Your task to perform on an android device: Show me popular games on the Play Store Image 0: 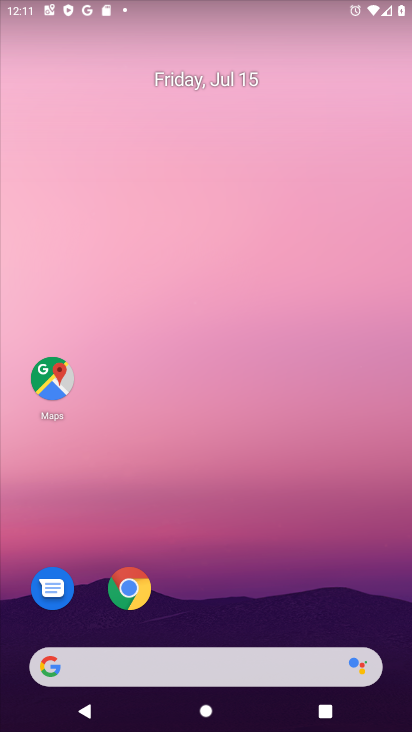
Step 0: press home button
Your task to perform on an android device: Show me popular games on the Play Store Image 1: 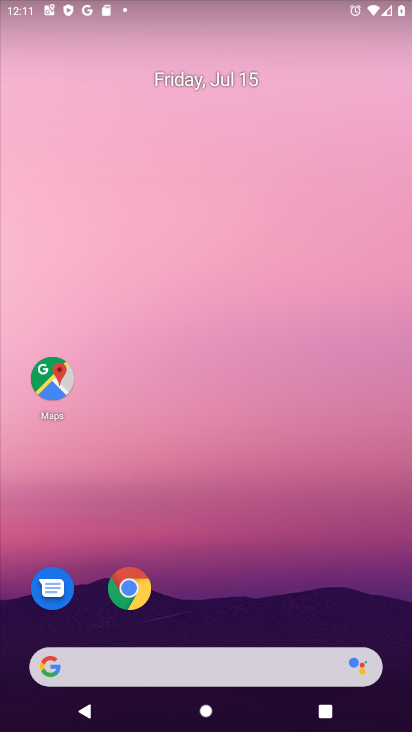
Step 1: drag from (166, 679) to (347, 225)
Your task to perform on an android device: Show me popular games on the Play Store Image 2: 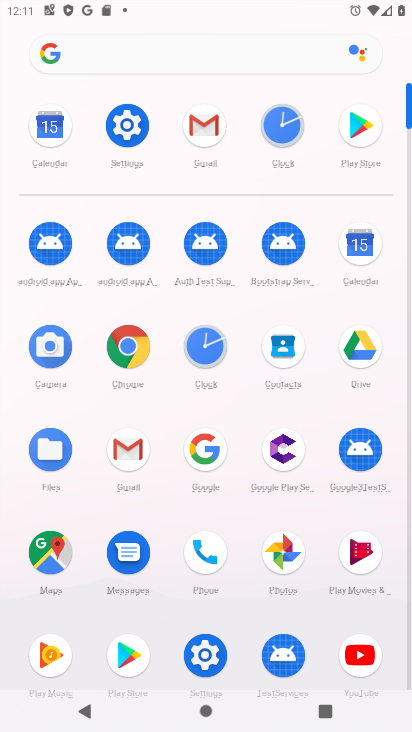
Step 2: click (126, 664)
Your task to perform on an android device: Show me popular games on the Play Store Image 3: 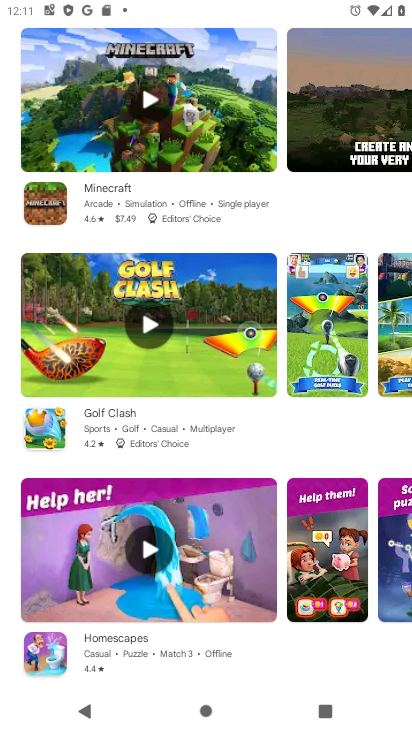
Step 3: task complete